Your task to perform on an android device: add a contact in the contacts app Image 0: 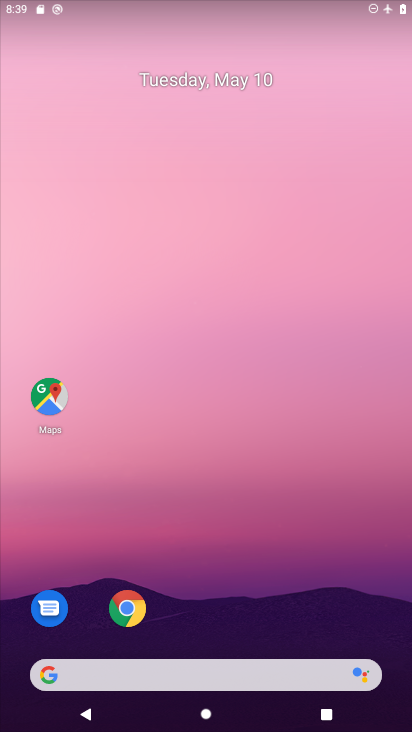
Step 0: drag from (231, 585) to (283, 226)
Your task to perform on an android device: add a contact in the contacts app Image 1: 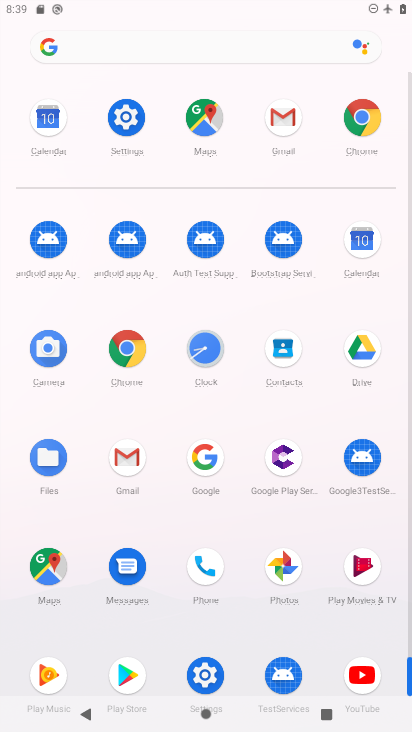
Step 1: click (201, 556)
Your task to perform on an android device: add a contact in the contacts app Image 2: 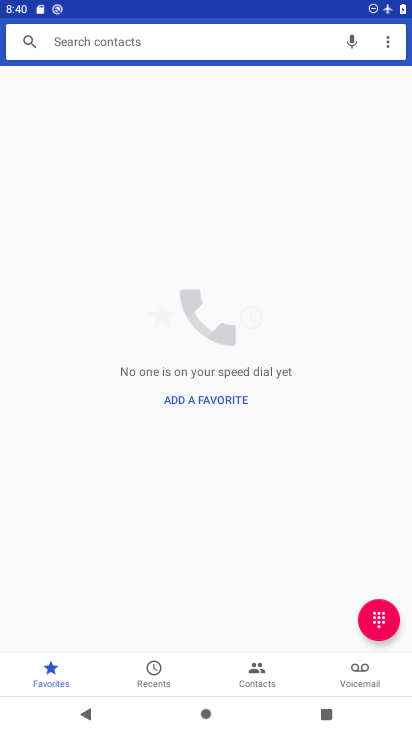
Step 2: click (203, 400)
Your task to perform on an android device: add a contact in the contacts app Image 3: 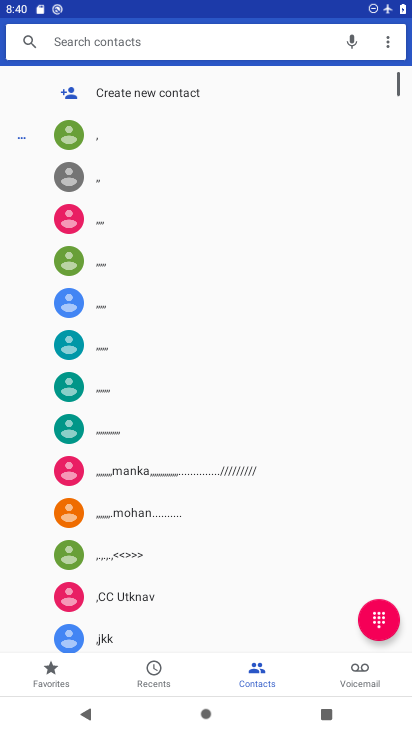
Step 3: click (156, 82)
Your task to perform on an android device: add a contact in the contacts app Image 4: 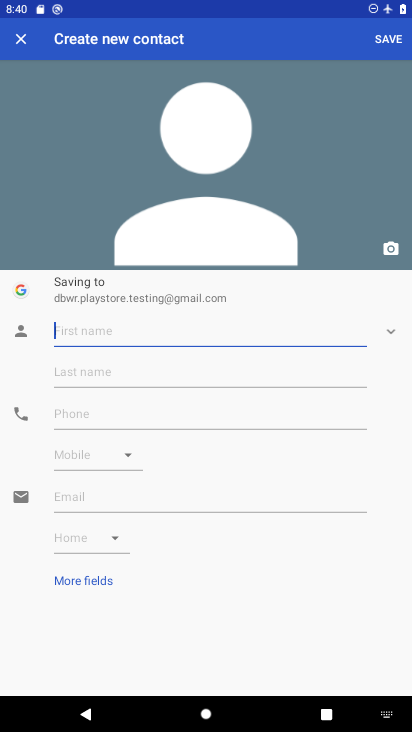
Step 4: click (149, 321)
Your task to perform on an android device: add a contact in the contacts app Image 5: 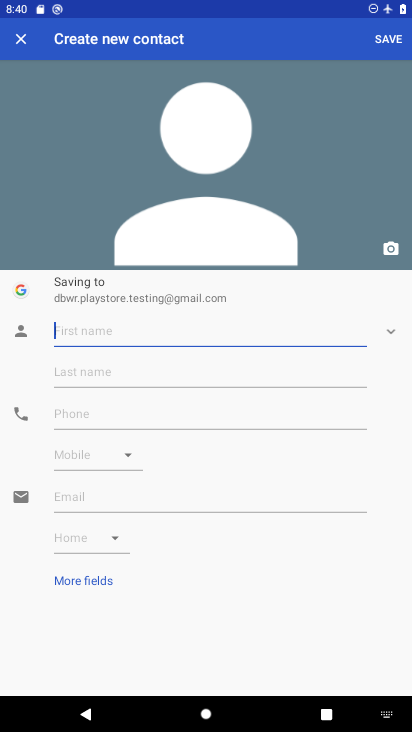
Step 5: type "iuiuuiuiiiiuiuiuiui"
Your task to perform on an android device: add a contact in the contacts app Image 6: 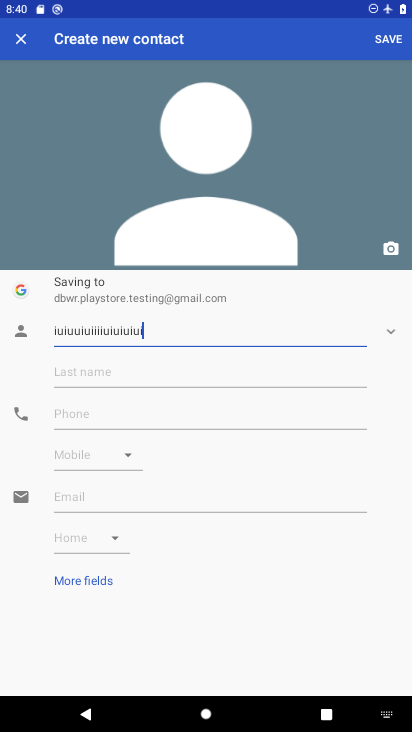
Step 6: click (89, 413)
Your task to perform on an android device: add a contact in the contacts app Image 7: 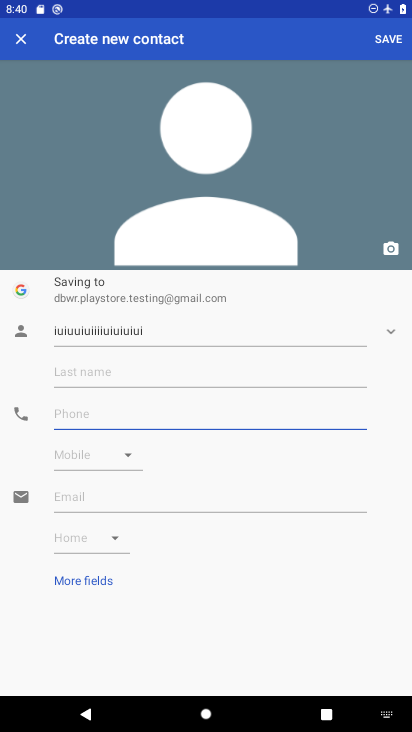
Step 7: type "090909090"
Your task to perform on an android device: add a contact in the contacts app Image 8: 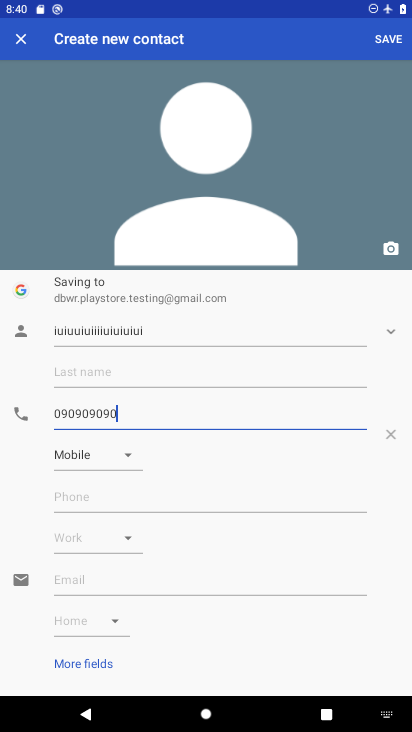
Step 8: click (385, 43)
Your task to perform on an android device: add a contact in the contacts app Image 9: 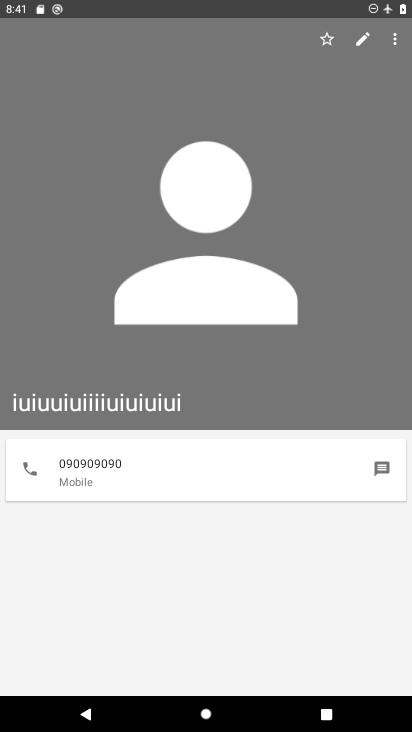
Step 9: task complete